Your task to perform on an android device: turn off priority inbox in the gmail app Image 0: 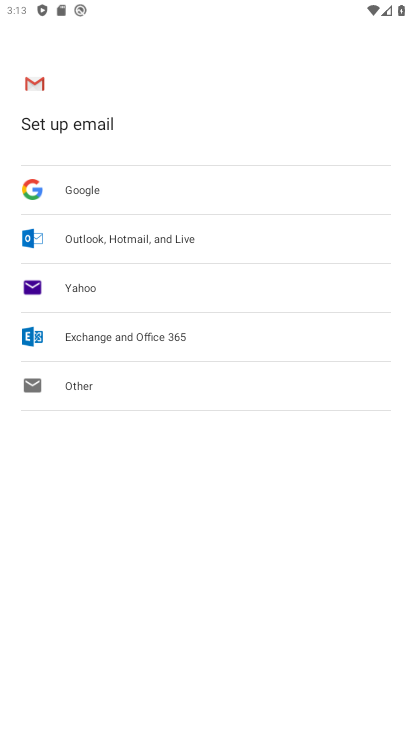
Step 0: press home button
Your task to perform on an android device: turn off priority inbox in the gmail app Image 1: 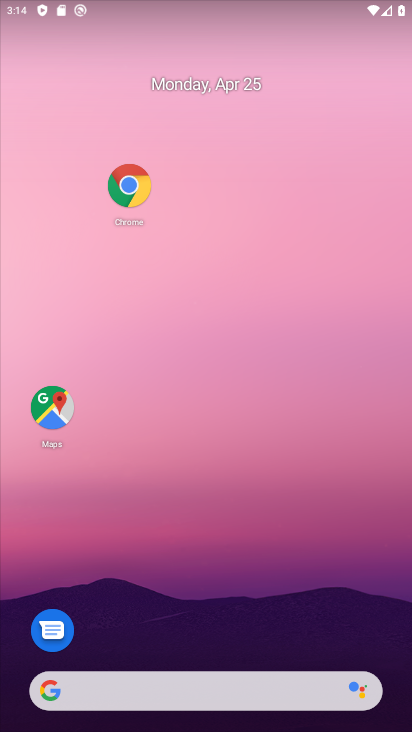
Step 1: drag from (135, 647) to (165, 179)
Your task to perform on an android device: turn off priority inbox in the gmail app Image 2: 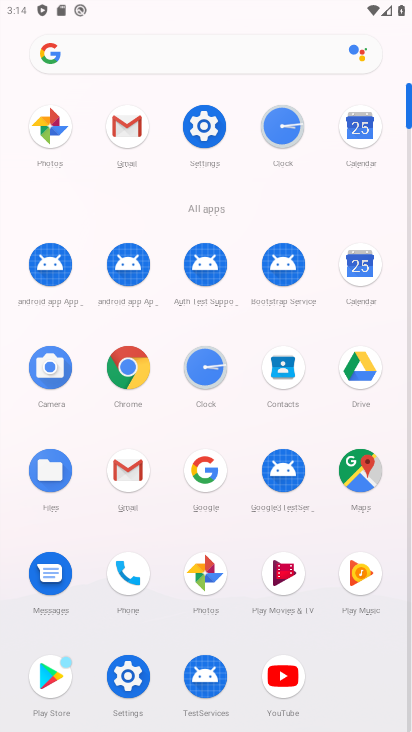
Step 2: click (132, 481)
Your task to perform on an android device: turn off priority inbox in the gmail app Image 3: 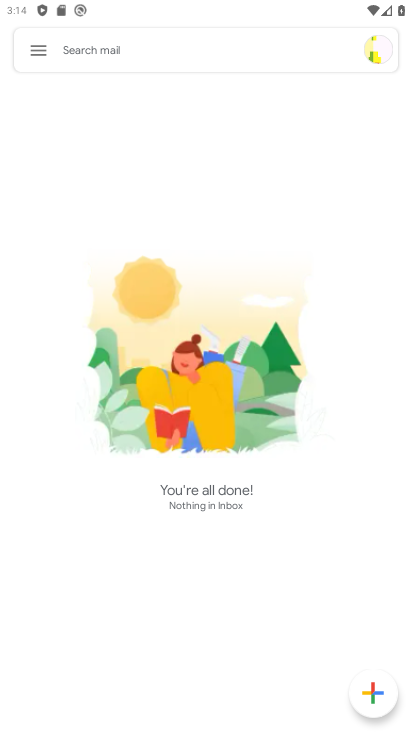
Step 3: click (34, 49)
Your task to perform on an android device: turn off priority inbox in the gmail app Image 4: 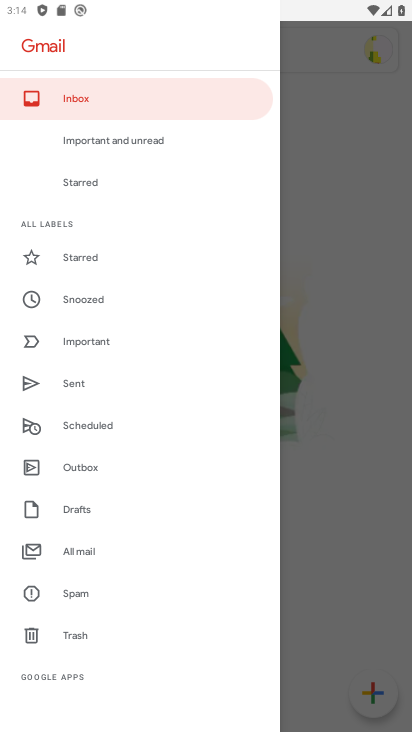
Step 4: drag from (98, 545) to (155, 213)
Your task to perform on an android device: turn off priority inbox in the gmail app Image 5: 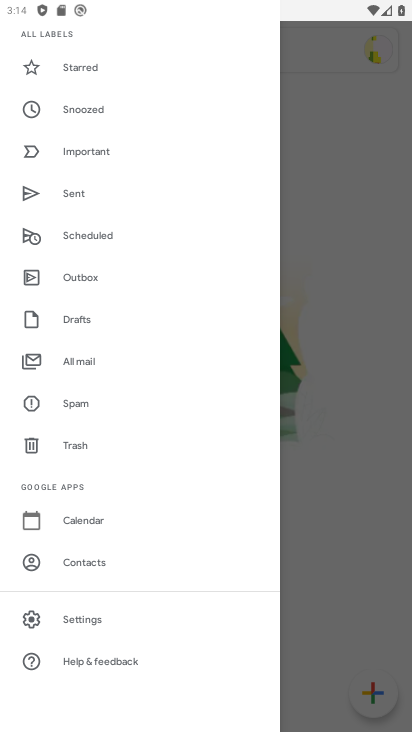
Step 5: click (83, 618)
Your task to perform on an android device: turn off priority inbox in the gmail app Image 6: 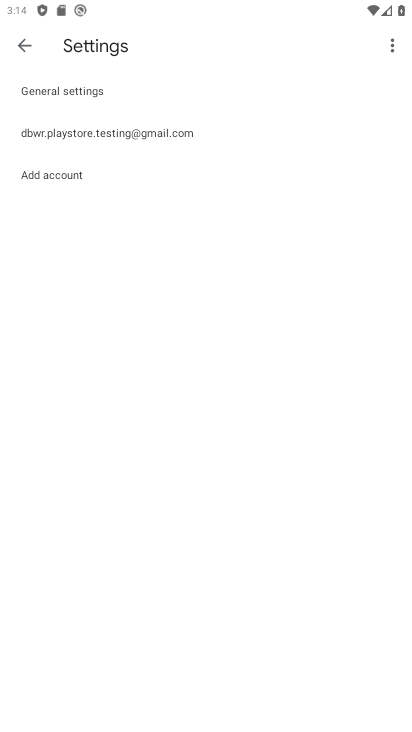
Step 6: click (140, 134)
Your task to perform on an android device: turn off priority inbox in the gmail app Image 7: 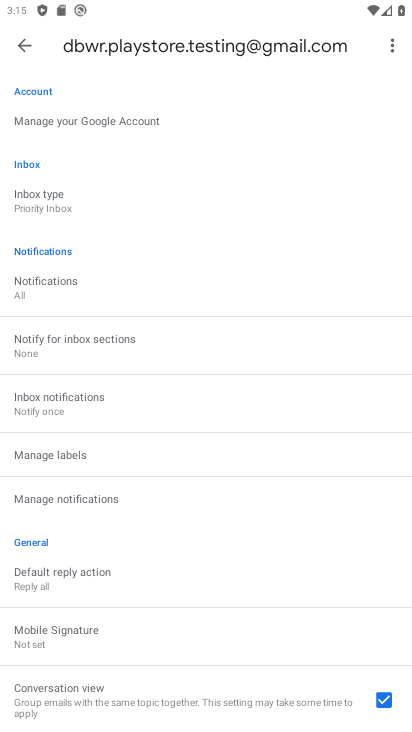
Step 7: click (80, 201)
Your task to perform on an android device: turn off priority inbox in the gmail app Image 8: 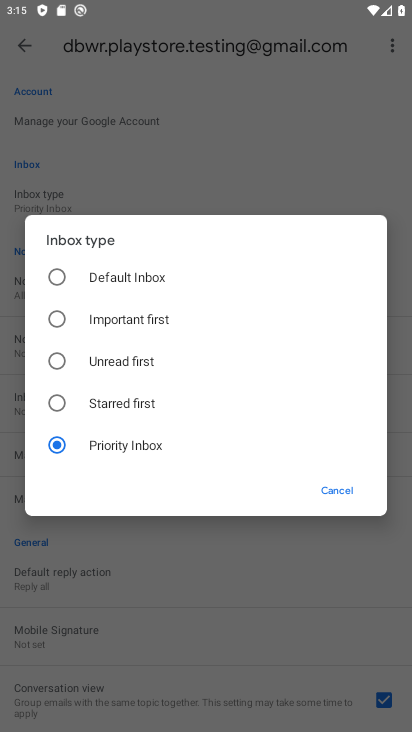
Step 8: click (120, 276)
Your task to perform on an android device: turn off priority inbox in the gmail app Image 9: 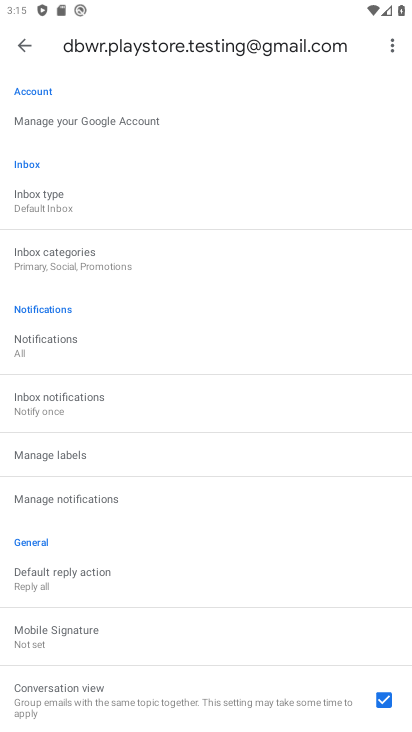
Step 9: task complete